Your task to perform on an android device: install app "DoorDash - Dasher" Image 0: 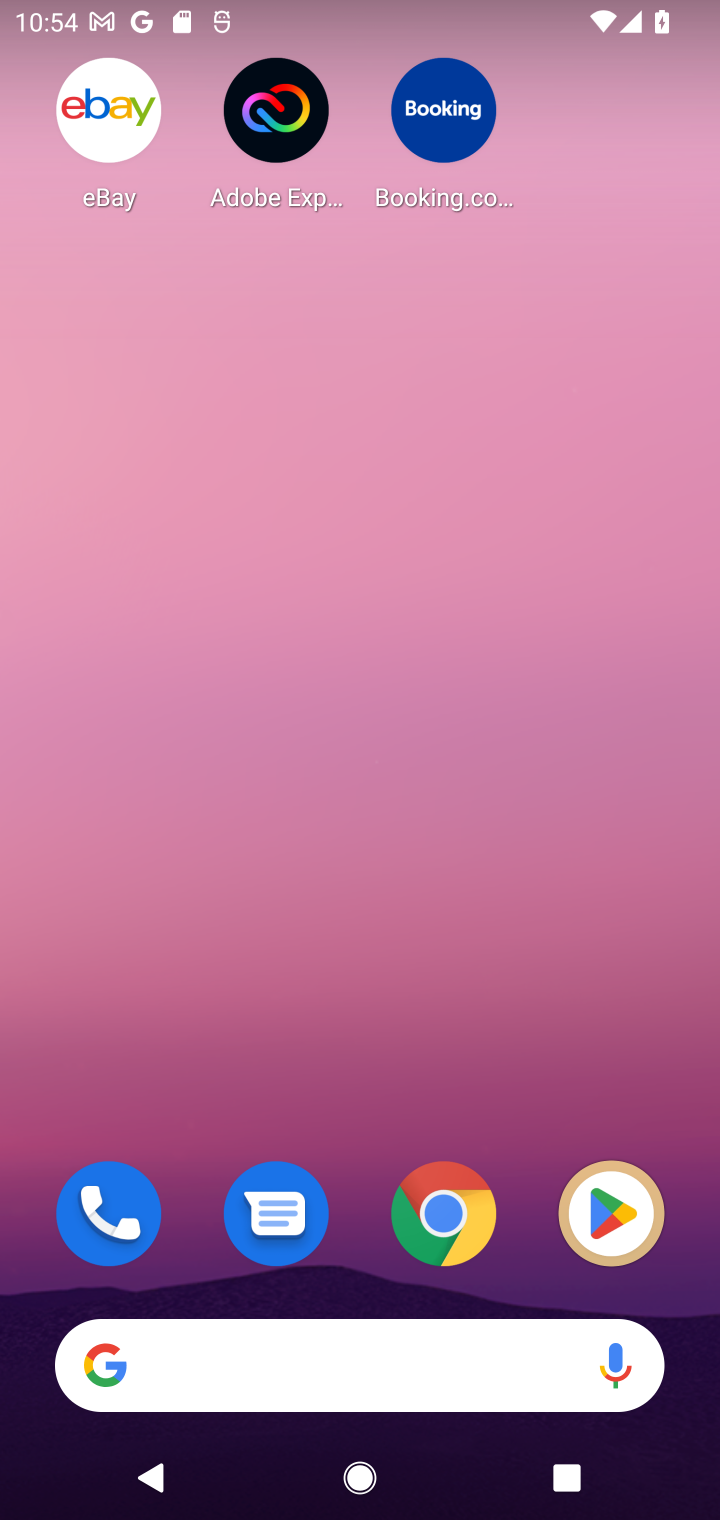
Step 0: drag from (323, 1379) to (283, 304)
Your task to perform on an android device: install app "DoorDash - Dasher" Image 1: 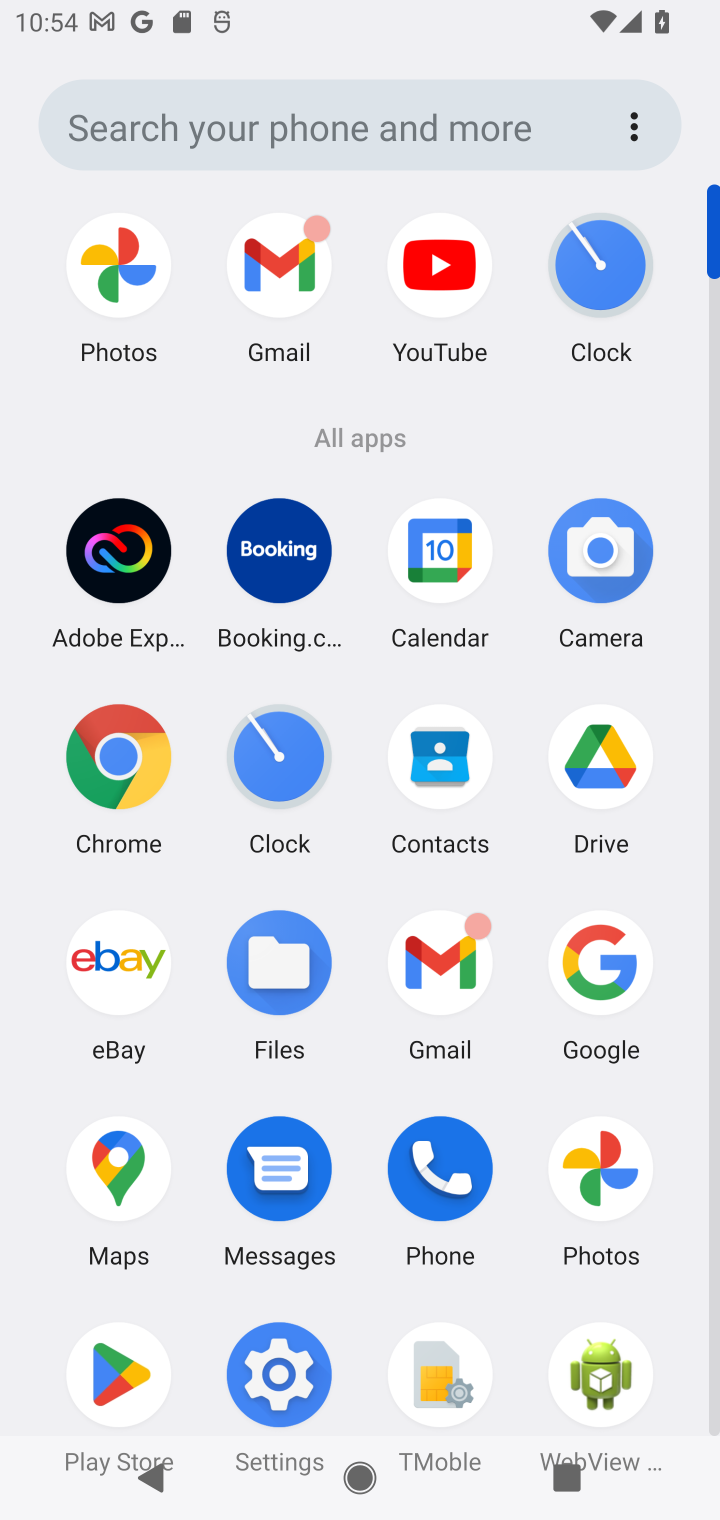
Step 1: click (123, 1369)
Your task to perform on an android device: install app "DoorDash - Dasher" Image 2: 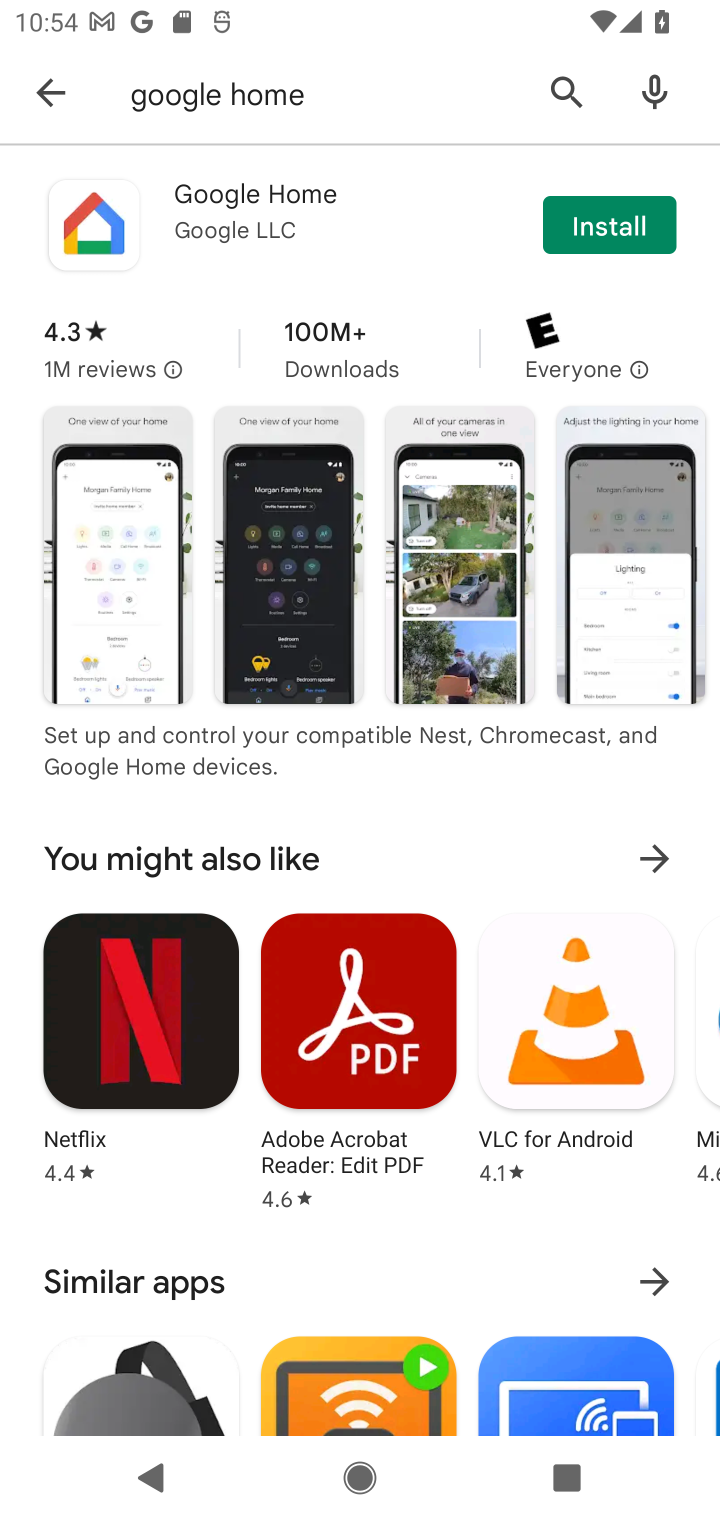
Step 2: press back button
Your task to perform on an android device: install app "DoorDash - Dasher" Image 3: 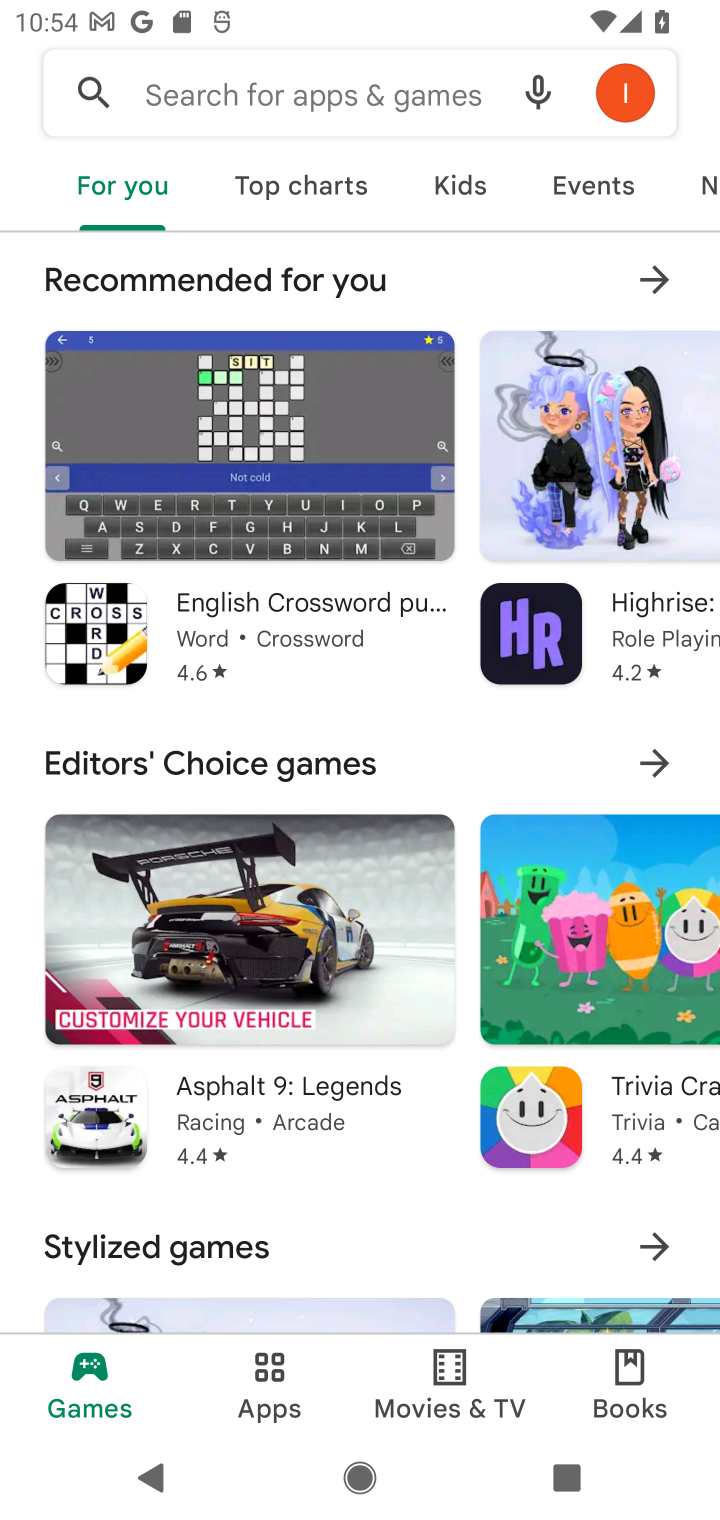
Step 3: click (433, 97)
Your task to perform on an android device: install app "DoorDash - Dasher" Image 4: 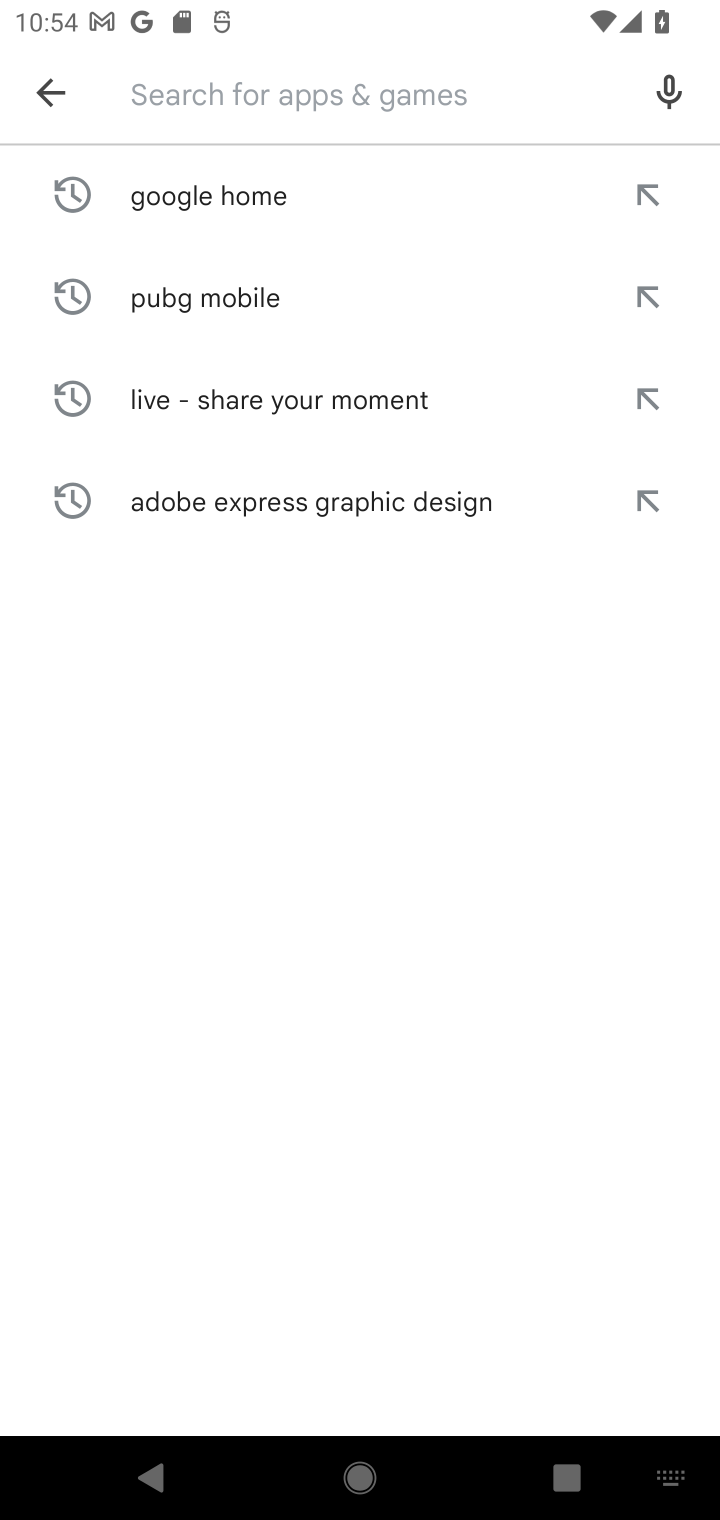
Step 4: type "DoorDash - Dasher"
Your task to perform on an android device: install app "DoorDash - Dasher" Image 5: 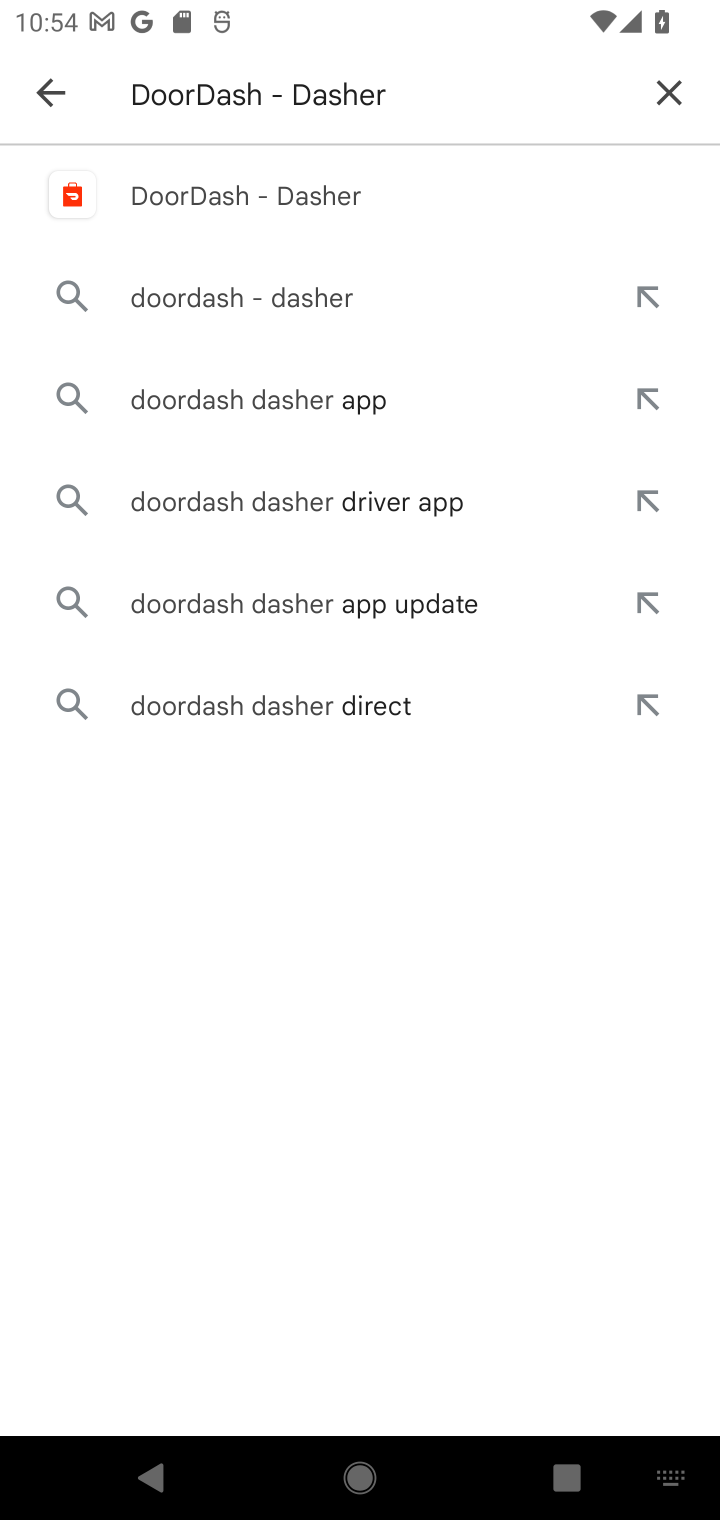
Step 5: click (344, 203)
Your task to perform on an android device: install app "DoorDash - Dasher" Image 6: 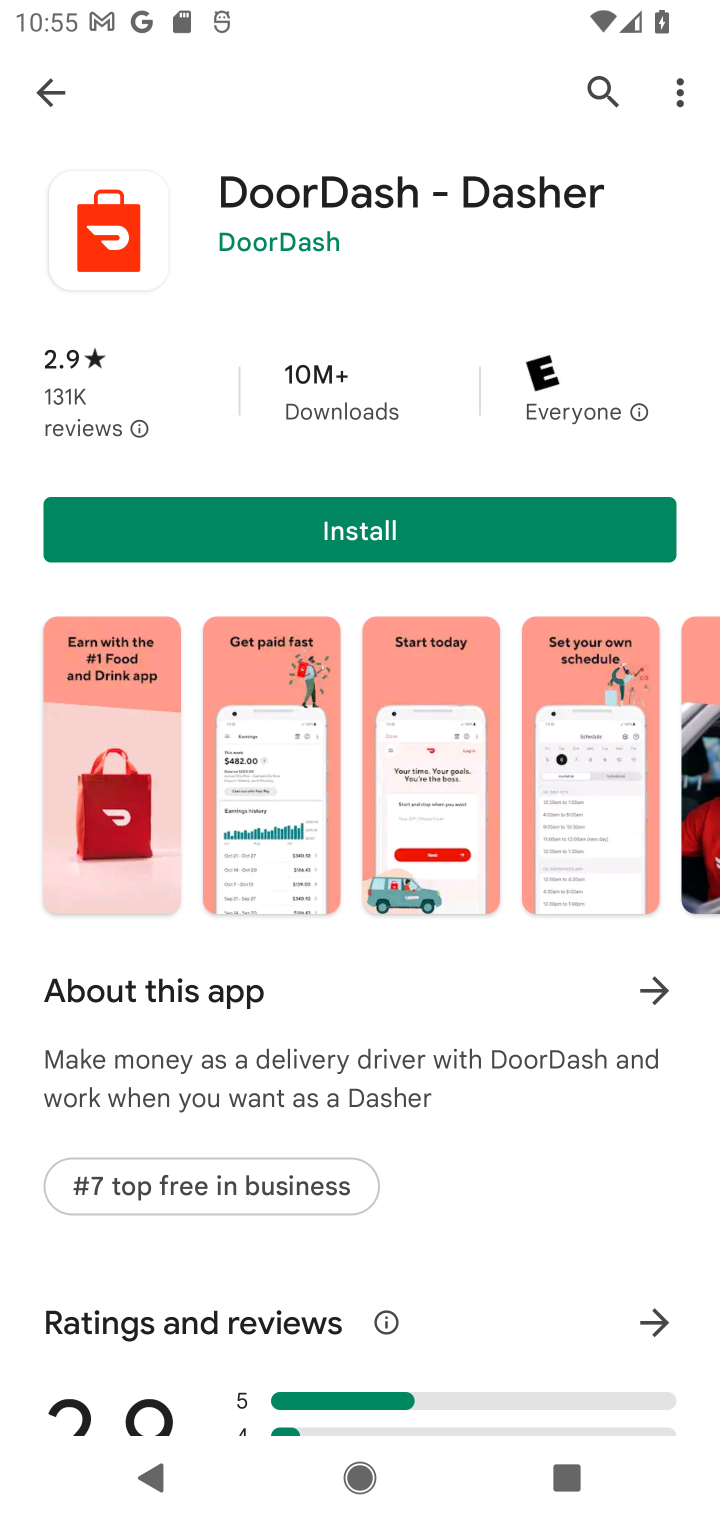
Step 6: click (345, 534)
Your task to perform on an android device: install app "DoorDash - Dasher" Image 7: 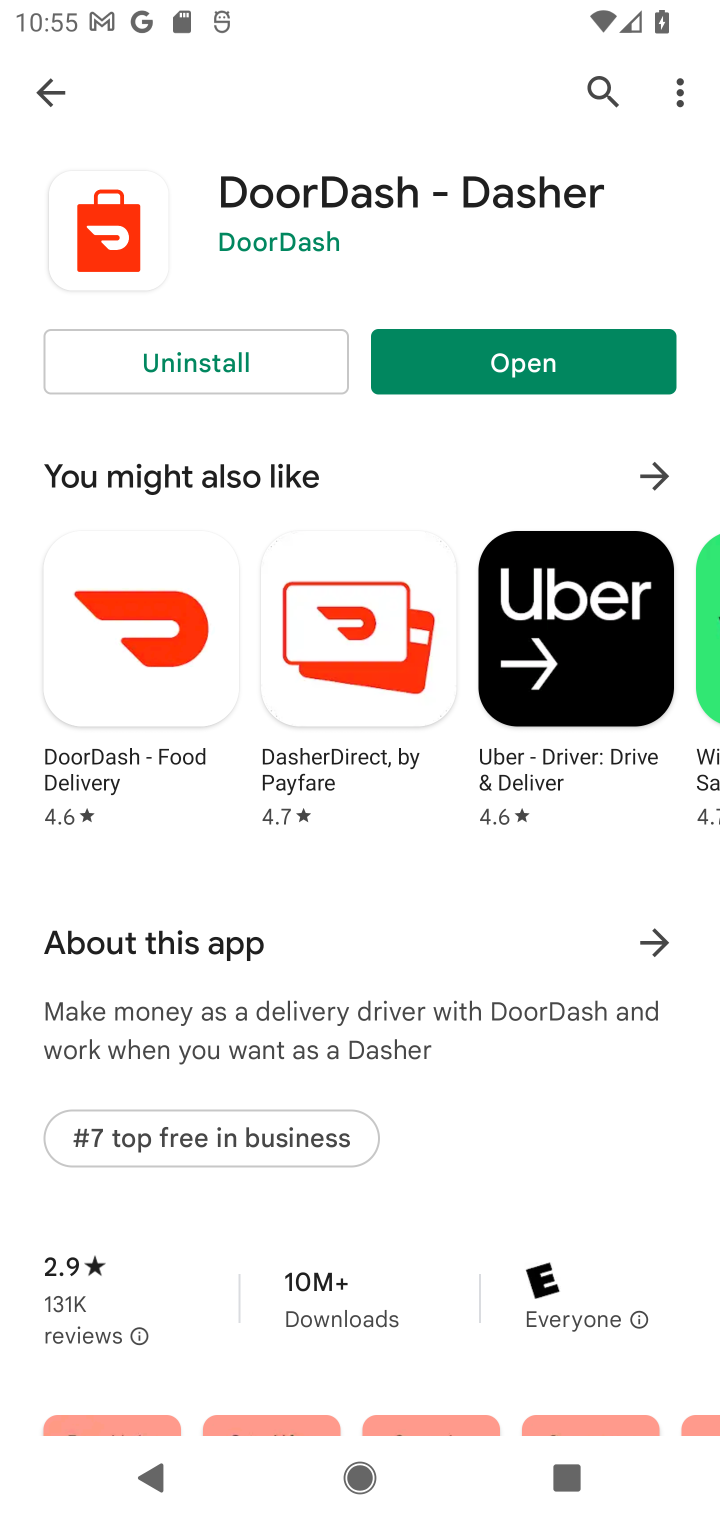
Step 7: task complete